Your task to perform on an android device: uninstall "Expedia: Hotels, Flights & Car" Image 0: 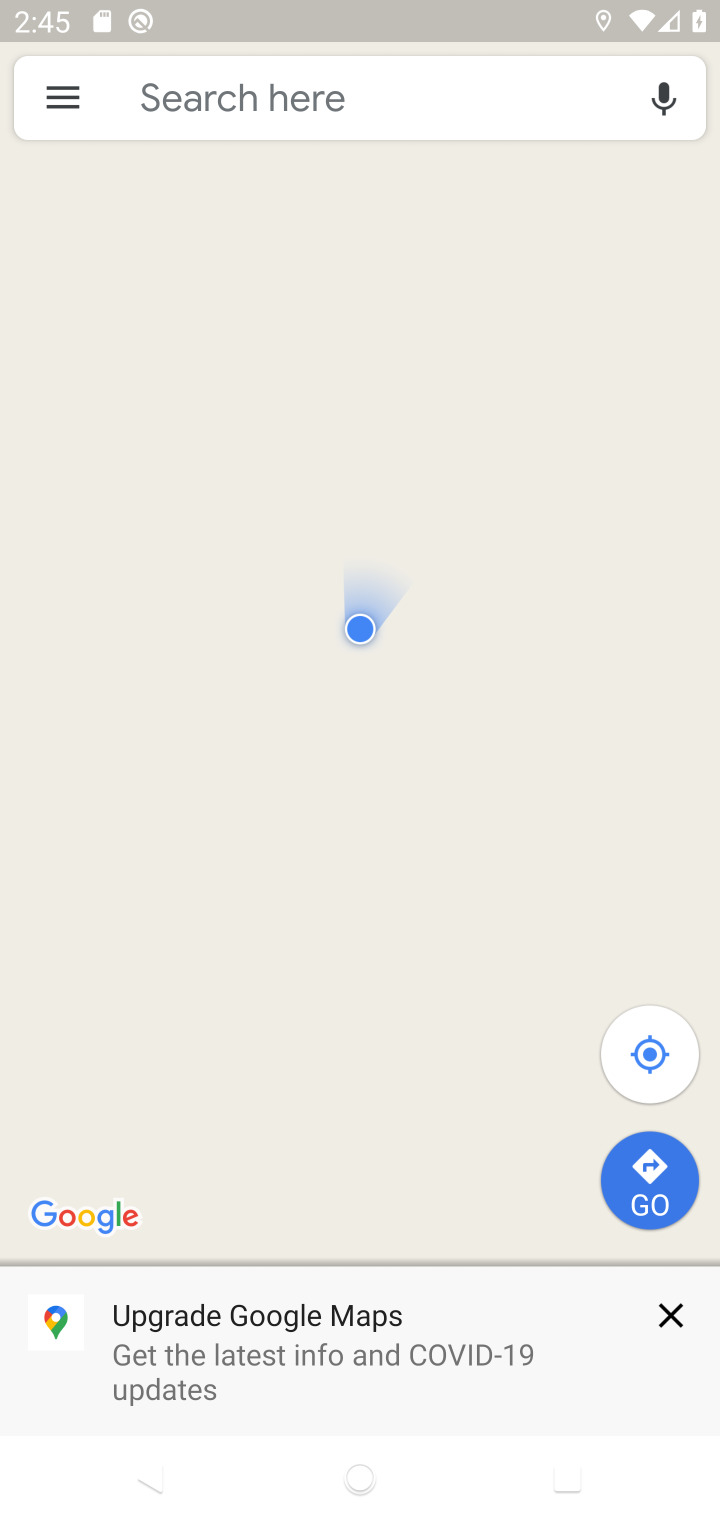
Step 0: press home button
Your task to perform on an android device: uninstall "Expedia: Hotels, Flights & Car" Image 1: 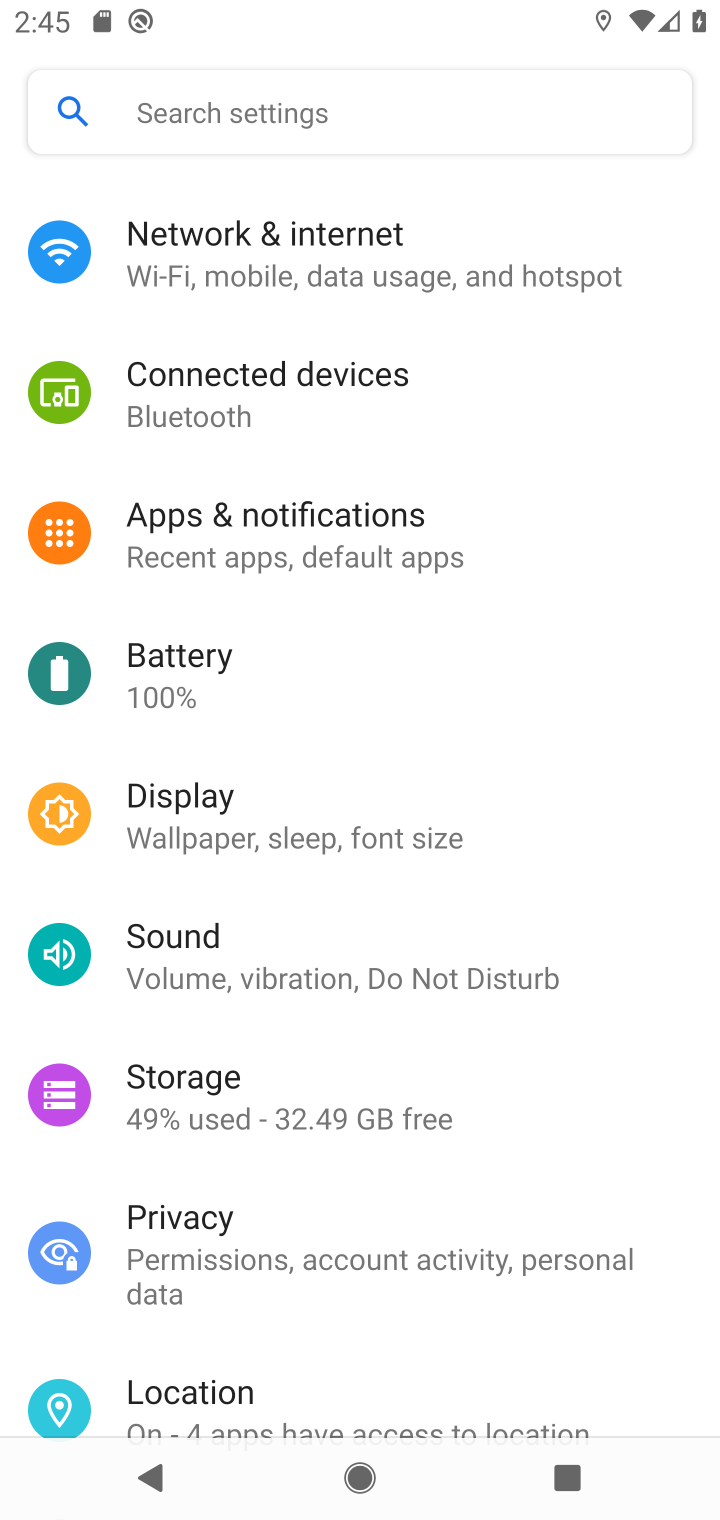
Step 1: press home button
Your task to perform on an android device: uninstall "Expedia: Hotels, Flights & Car" Image 2: 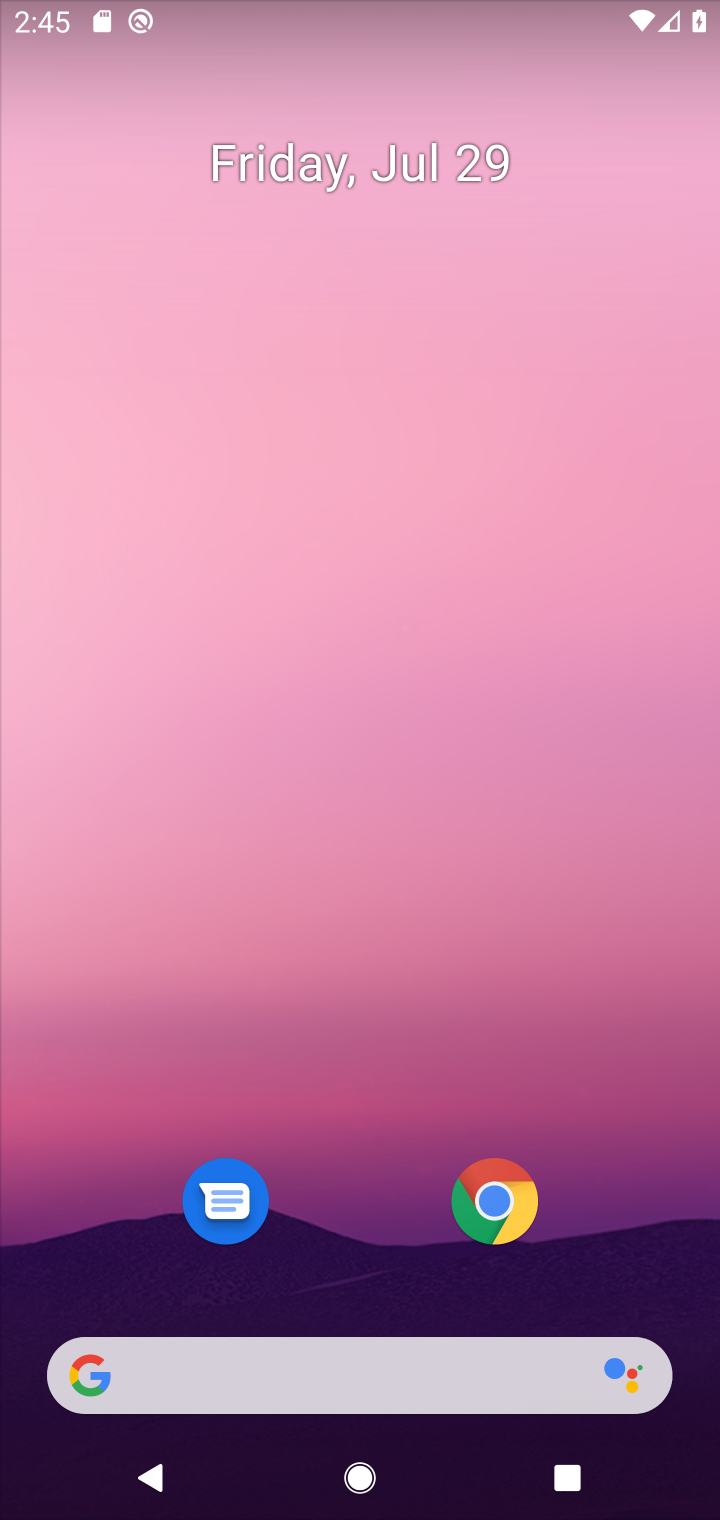
Step 2: drag from (613, 1223) to (586, 0)
Your task to perform on an android device: uninstall "Expedia: Hotels, Flights & Car" Image 3: 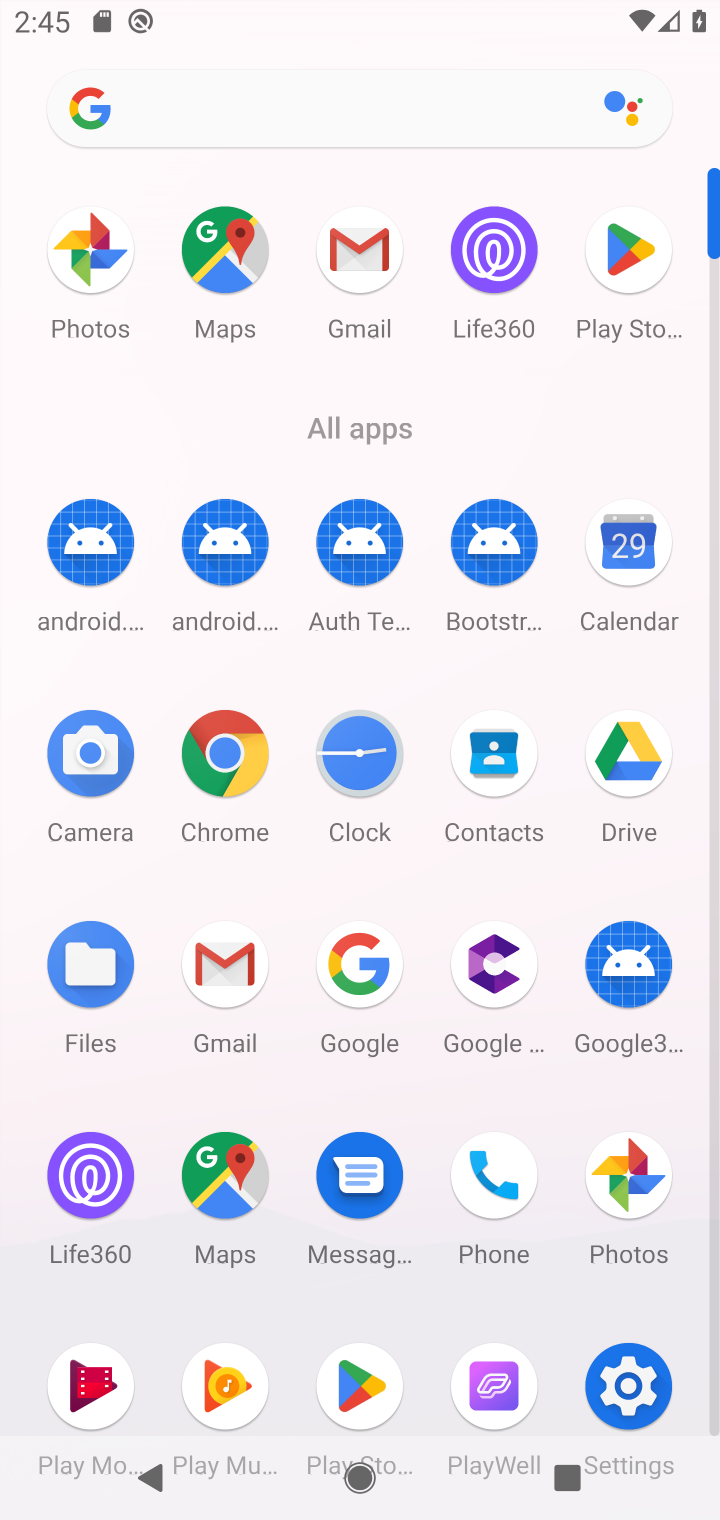
Step 3: click (611, 252)
Your task to perform on an android device: uninstall "Expedia: Hotels, Flights & Car" Image 4: 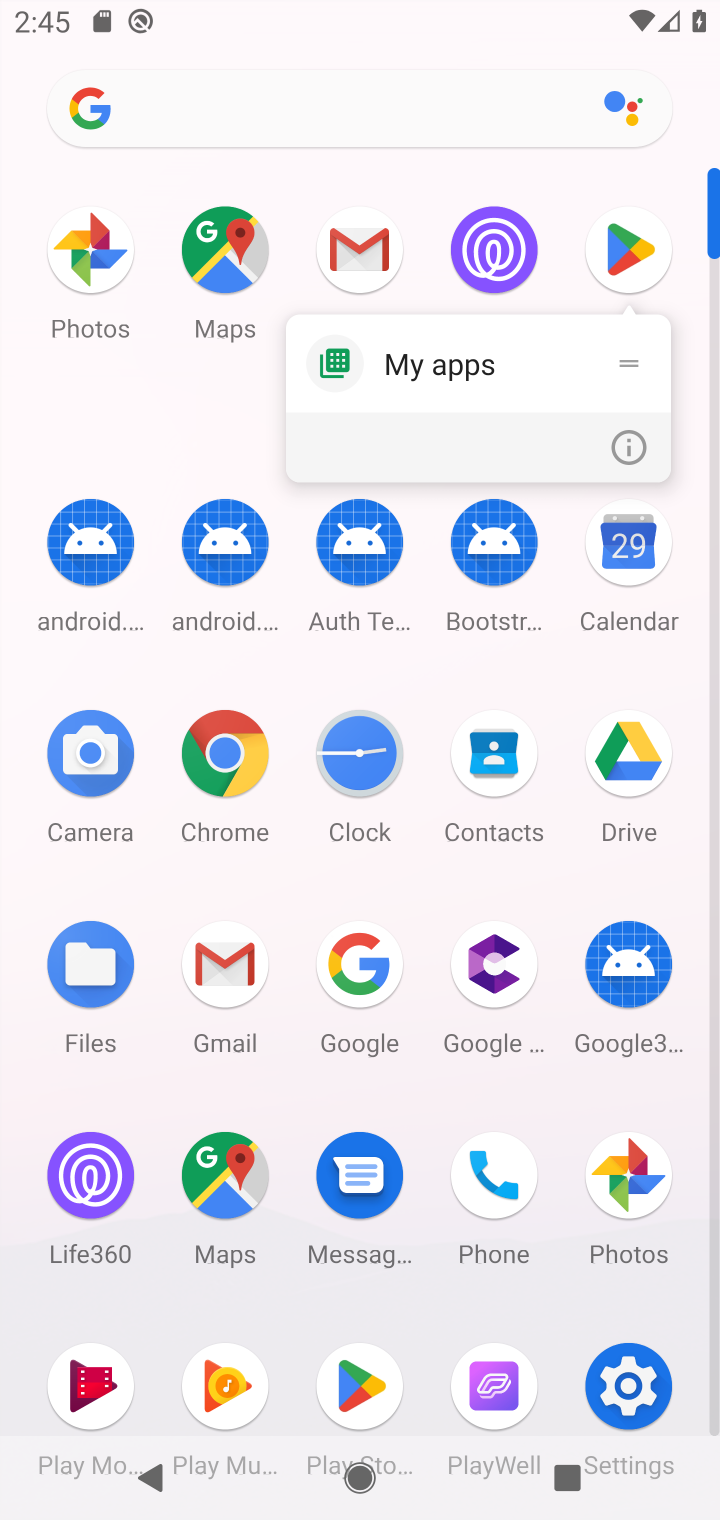
Step 4: click (611, 252)
Your task to perform on an android device: uninstall "Expedia: Hotels, Flights & Car" Image 5: 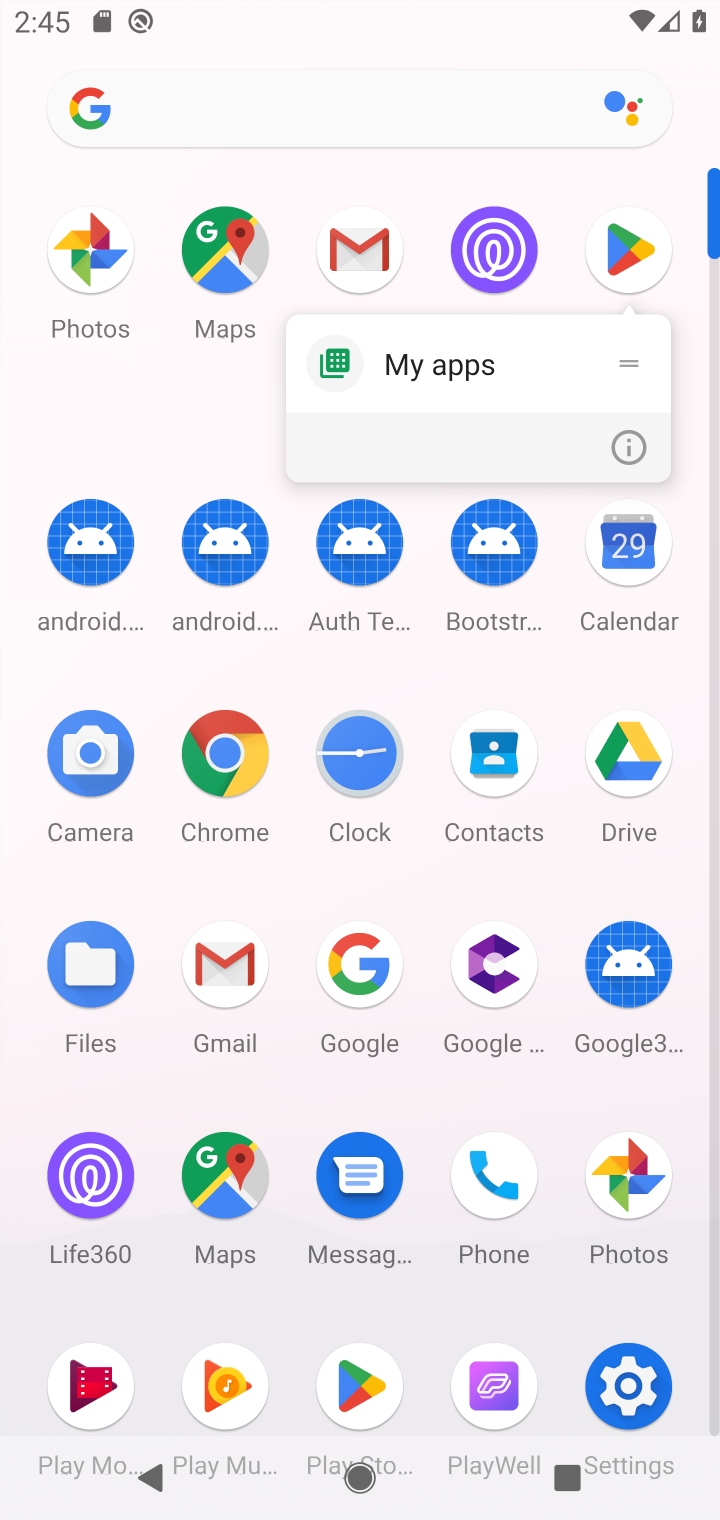
Step 5: click (611, 252)
Your task to perform on an android device: uninstall "Expedia: Hotels, Flights & Car" Image 6: 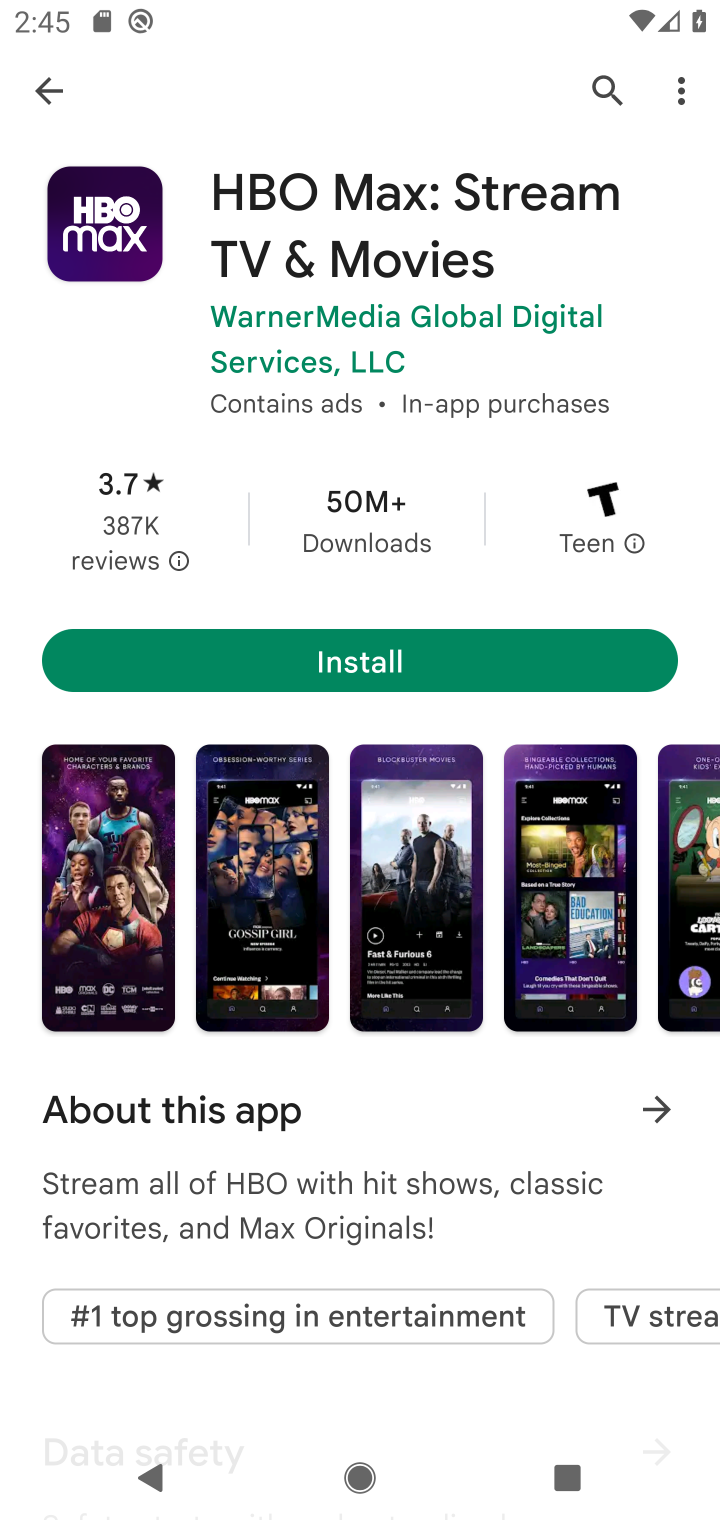
Step 6: click (609, 84)
Your task to perform on an android device: uninstall "Expedia: Hotels, Flights & Car" Image 7: 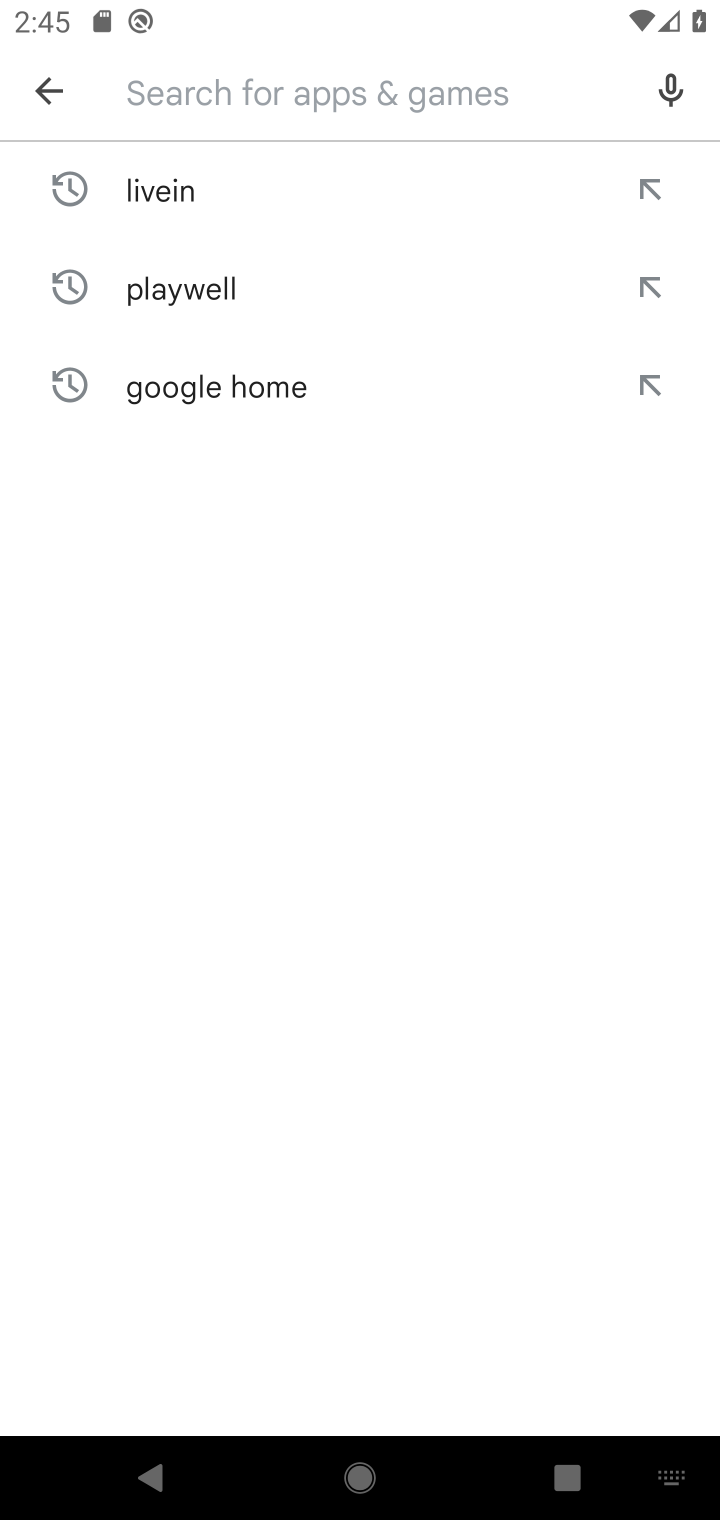
Step 7: click (547, 86)
Your task to perform on an android device: uninstall "Expedia: Hotels, Flights & Car" Image 8: 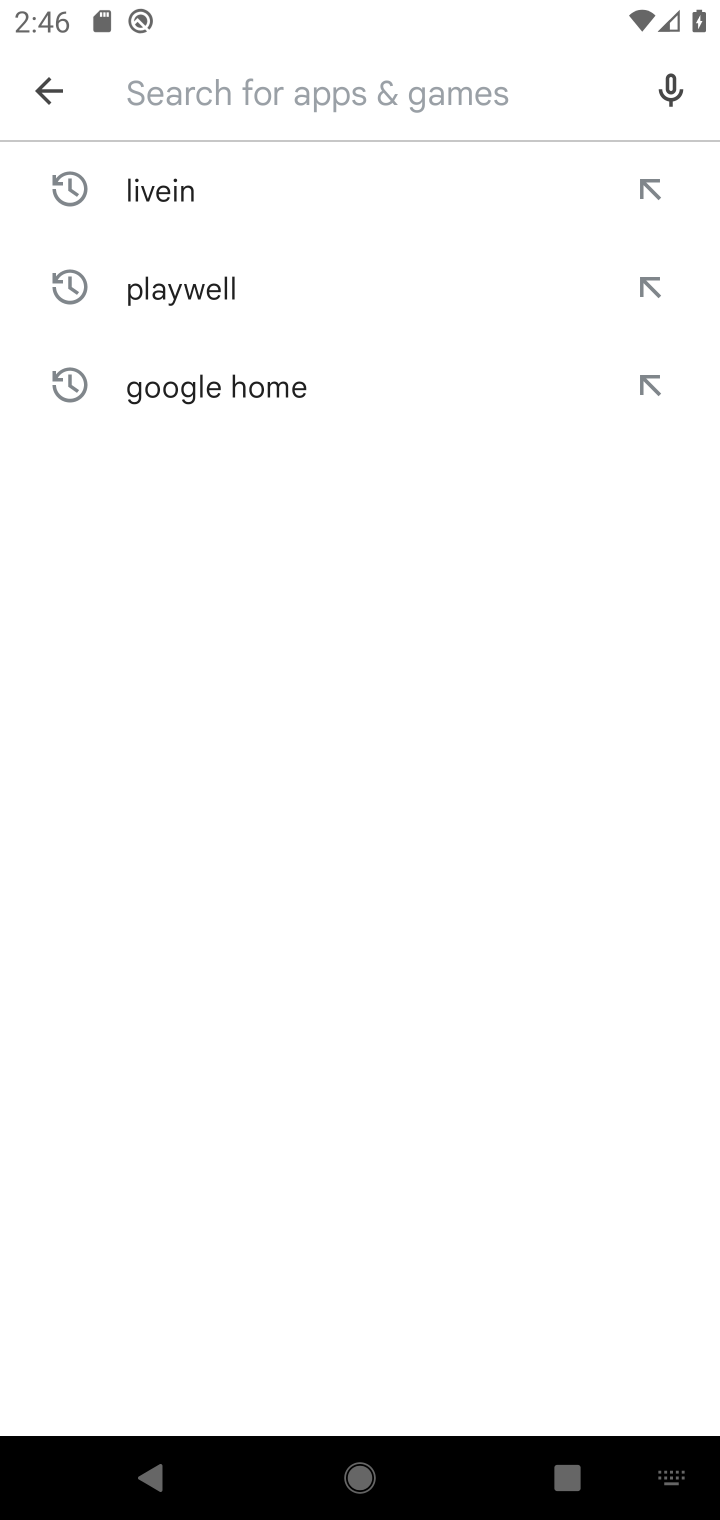
Step 8: type "Expedia: Hotels, Flights & Car""
Your task to perform on an android device: uninstall "Expedia: Hotels, Flights & Car" Image 9: 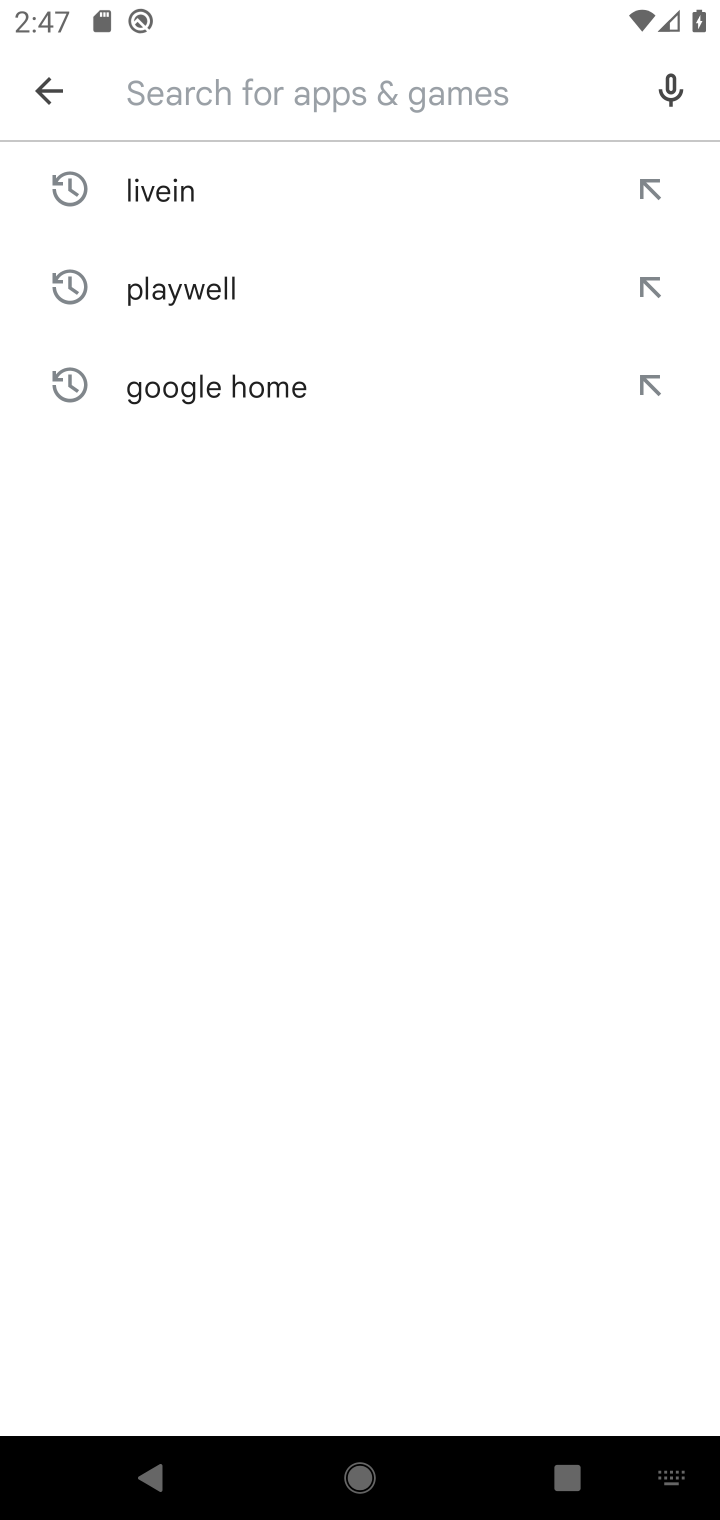
Step 9: type "Expedia  hotels flights & car"
Your task to perform on an android device: uninstall "Expedia: Hotels, Flights & Car" Image 10: 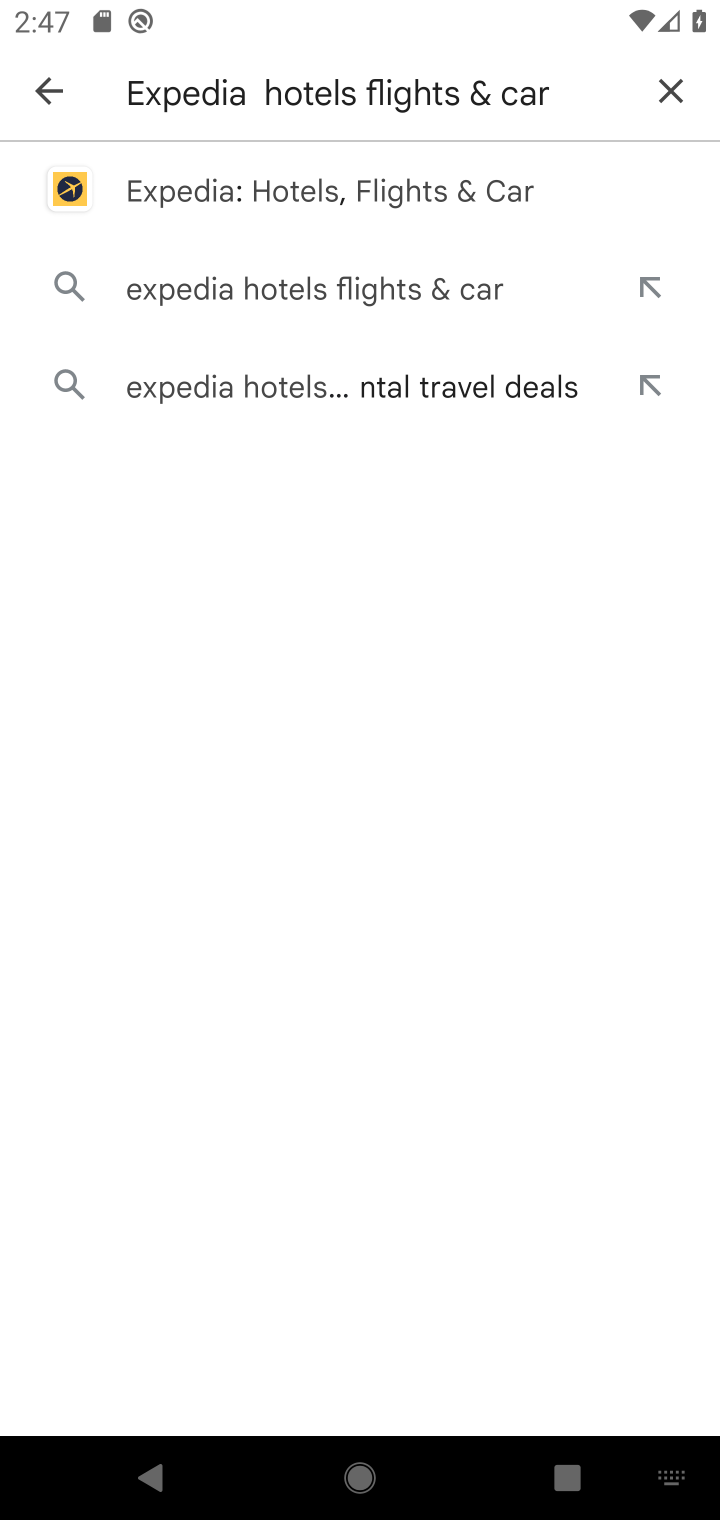
Step 10: click (179, 191)
Your task to perform on an android device: uninstall "Expedia: Hotels, Flights & Car" Image 11: 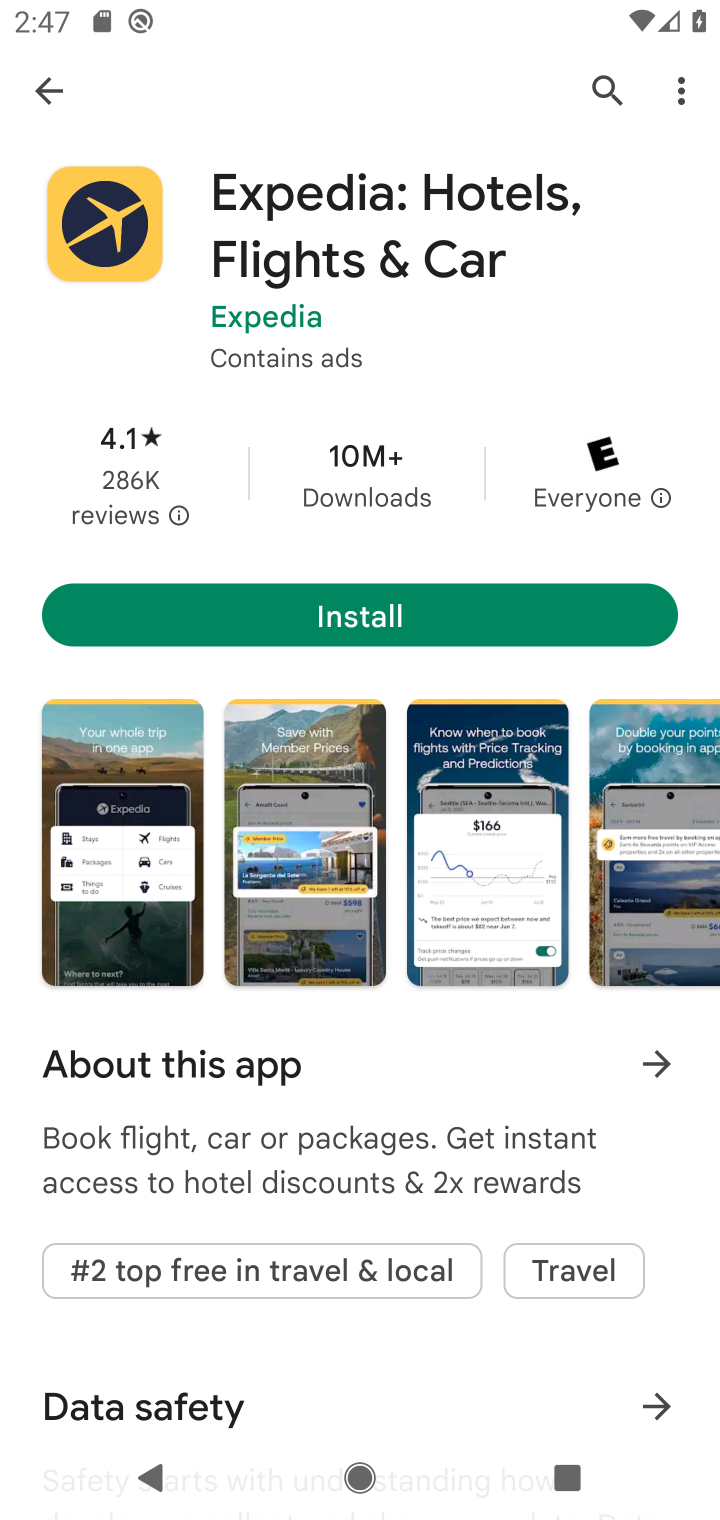
Step 11: task complete